Your task to perform on an android device: turn off sleep mode Image 0: 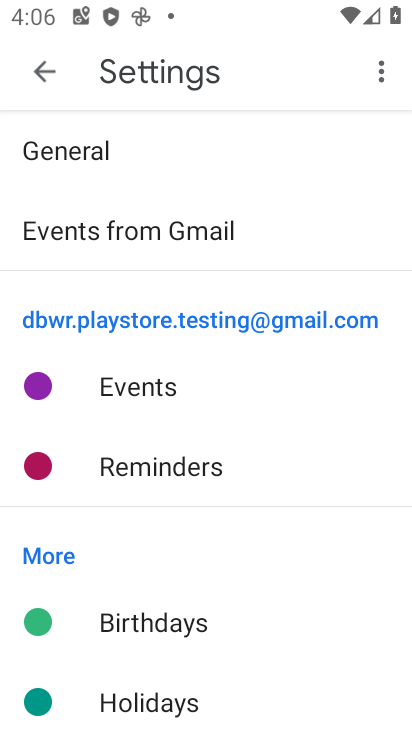
Step 0: press home button
Your task to perform on an android device: turn off sleep mode Image 1: 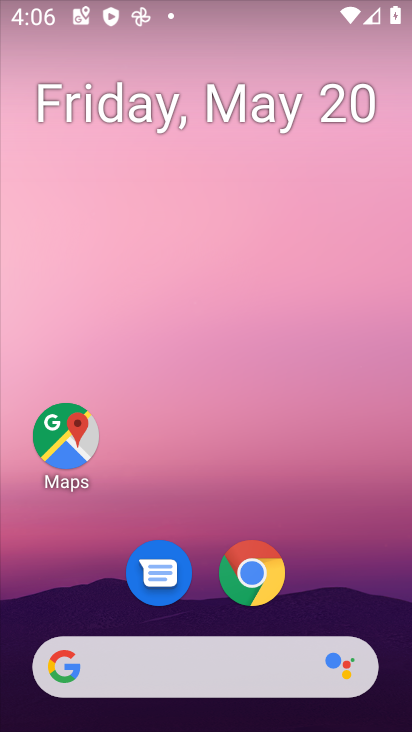
Step 1: drag from (386, 616) to (323, 70)
Your task to perform on an android device: turn off sleep mode Image 2: 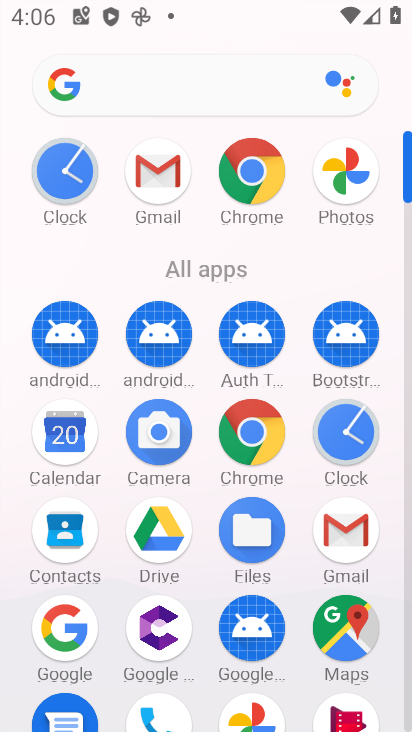
Step 2: click (408, 695)
Your task to perform on an android device: turn off sleep mode Image 3: 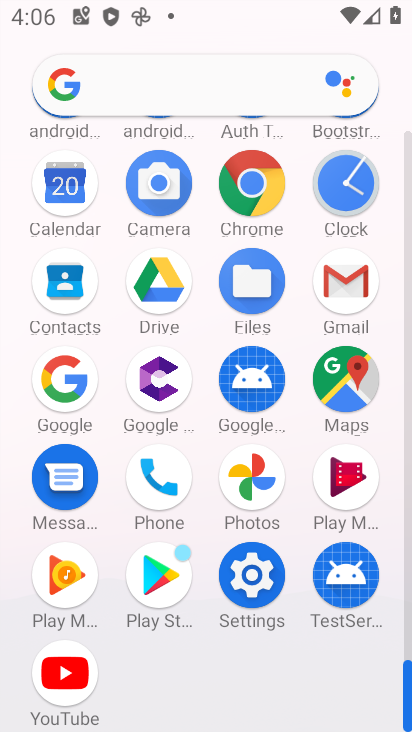
Step 3: click (251, 574)
Your task to perform on an android device: turn off sleep mode Image 4: 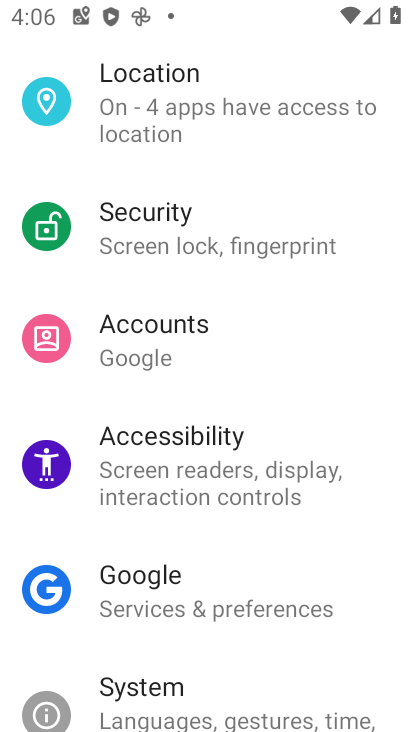
Step 4: drag from (313, 245) to (289, 577)
Your task to perform on an android device: turn off sleep mode Image 5: 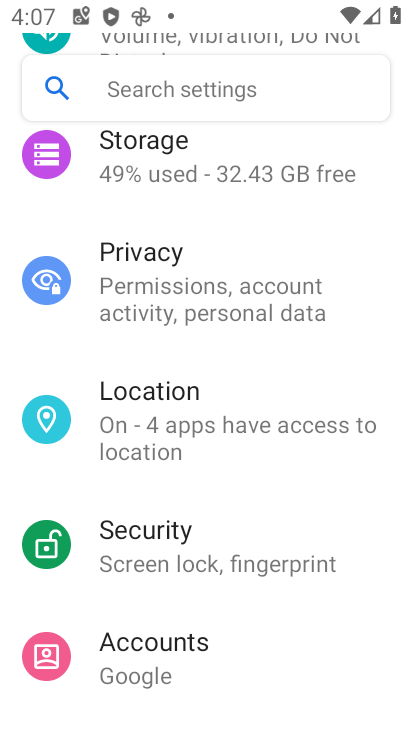
Step 5: drag from (342, 284) to (327, 641)
Your task to perform on an android device: turn off sleep mode Image 6: 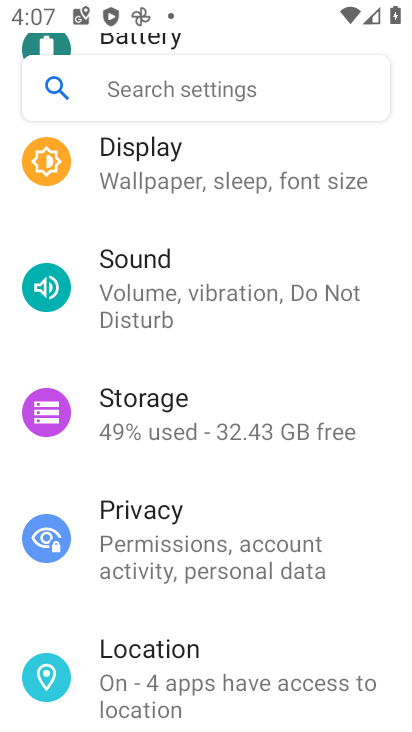
Step 6: drag from (342, 267) to (338, 540)
Your task to perform on an android device: turn off sleep mode Image 7: 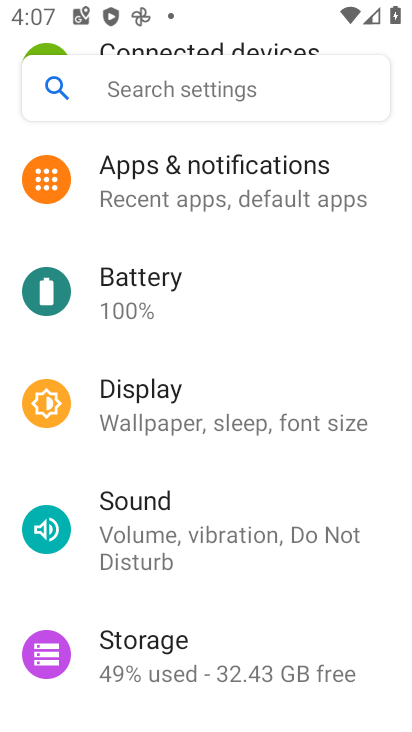
Step 7: click (137, 401)
Your task to perform on an android device: turn off sleep mode Image 8: 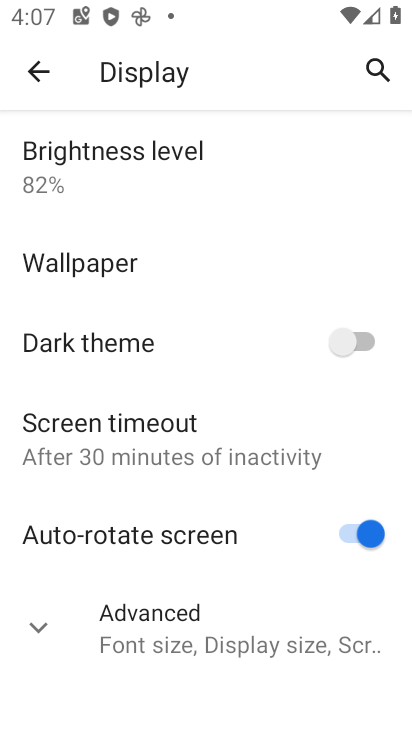
Step 8: click (25, 624)
Your task to perform on an android device: turn off sleep mode Image 9: 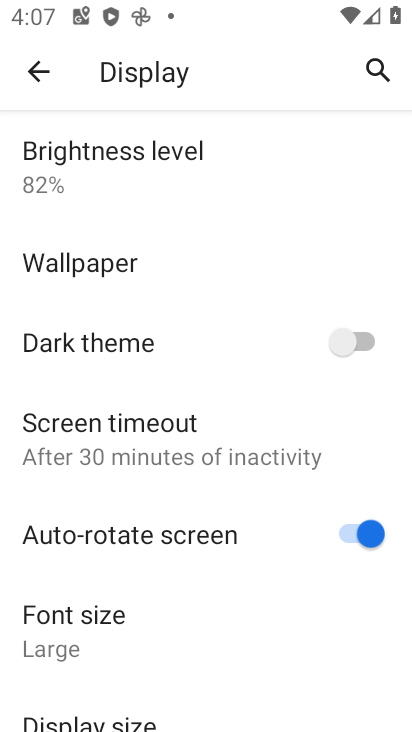
Step 9: task complete